Your task to perform on an android device: Go to eBay Image 0: 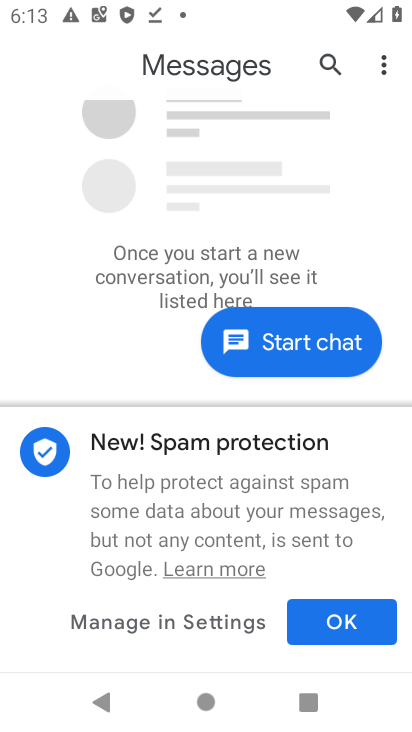
Step 0: drag from (222, 640) to (267, 330)
Your task to perform on an android device: Go to eBay Image 1: 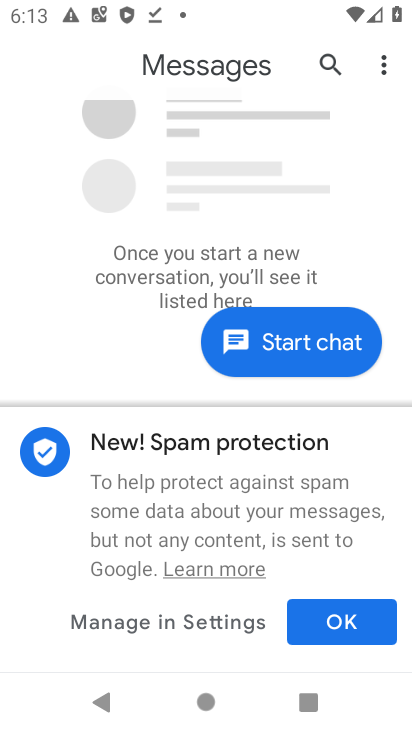
Step 1: drag from (199, 440) to (214, 304)
Your task to perform on an android device: Go to eBay Image 2: 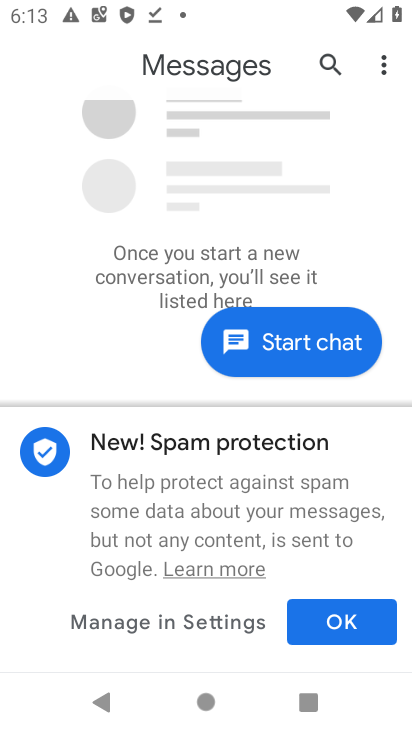
Step 2: press home button
Your task to perform on an android device: Go to eBay Image 3: 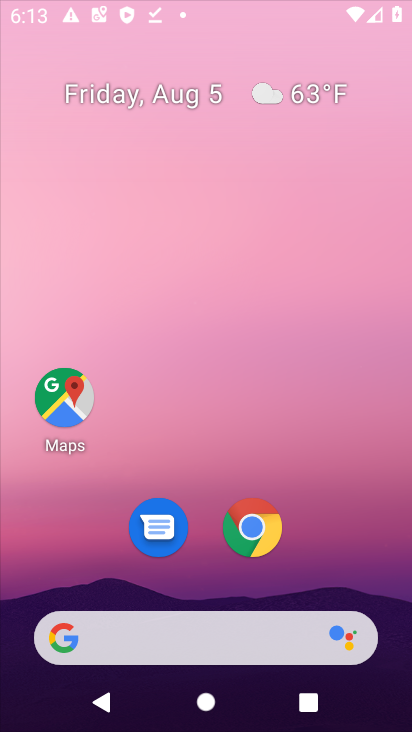
Step 3: drag from (188, 579) to (294, 213)
Your task to perform on an android device: Go to eBay Image 4: 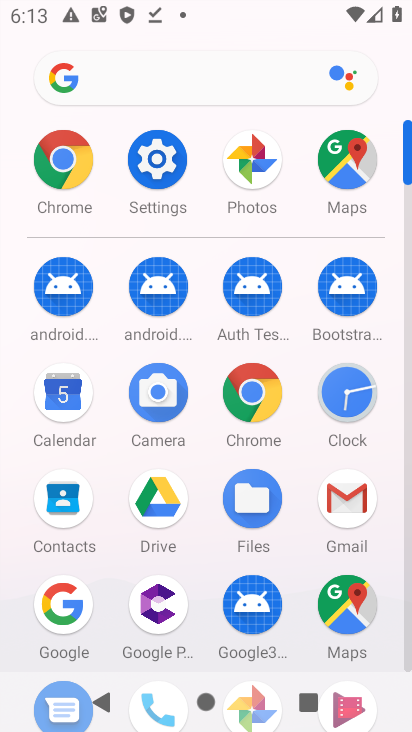
Step 4: click (174, 78)
Your task to perform on an android device: Go to eBay Image 5: 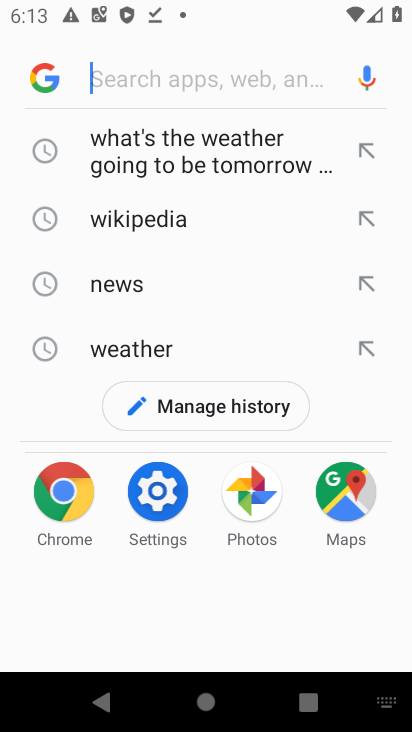
Step 5: click (199, 87)
Your task to perform on an android device: Go to eBay Image 6: 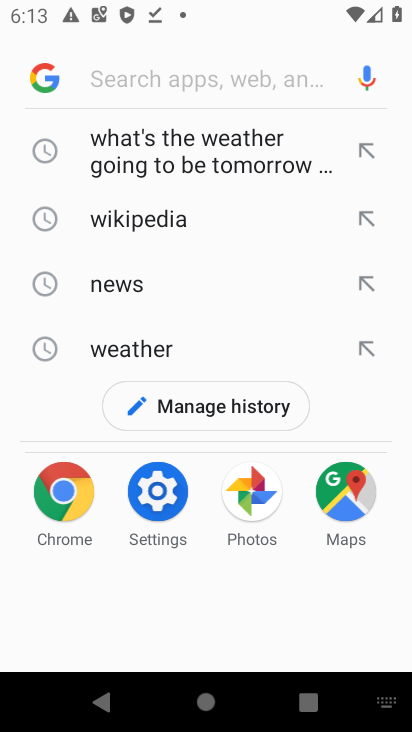
Step 6: type "eBay"
Your task to perform on an android device: Go to eBay Image 7: 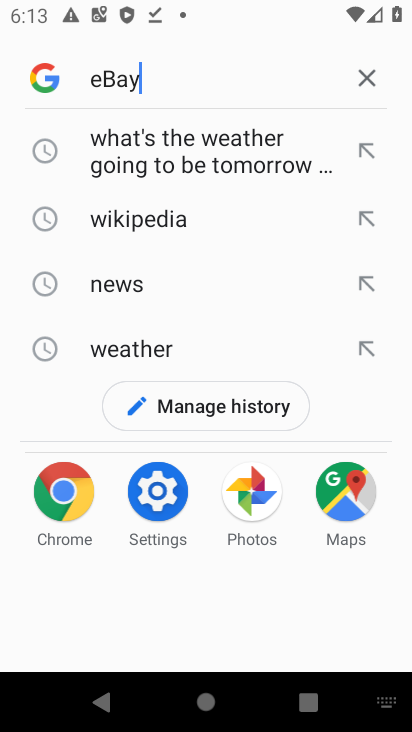
Step 7: type ""
Your task to perform on an android device: Go to eBay Image 8: 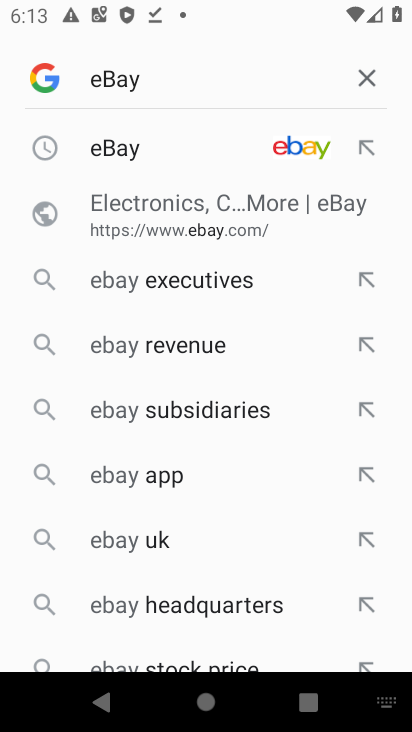
Step 8: click (144, 154)
Your task to perform on an android device: Go to eBay Image 9: 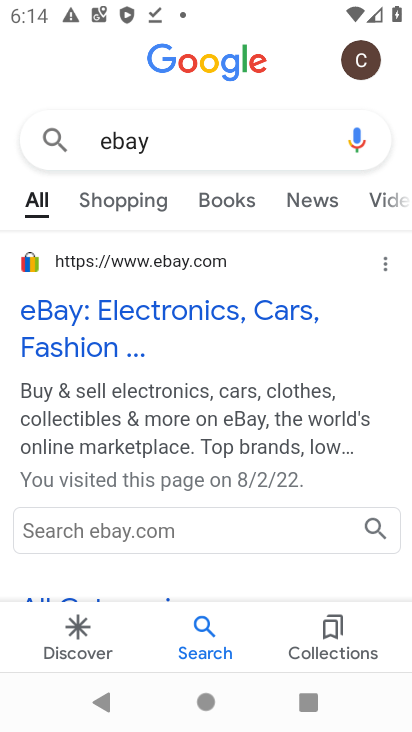
Step 9: click (148, 313)
Your task to perform on an android device: Go to eBay Image 10: 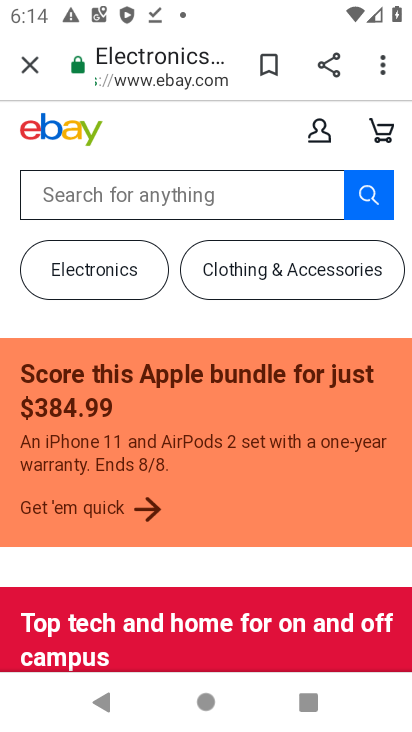
Step 10: task complete